Your task to perform on an android device: toggle data saver in the chrome app Image 0: 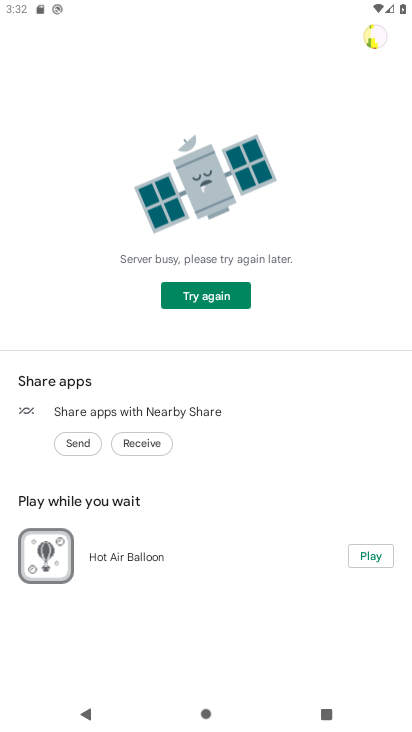
Step 0: press home button
Your task to perform on an android device: toggle data saver in the chrome app Image 1: 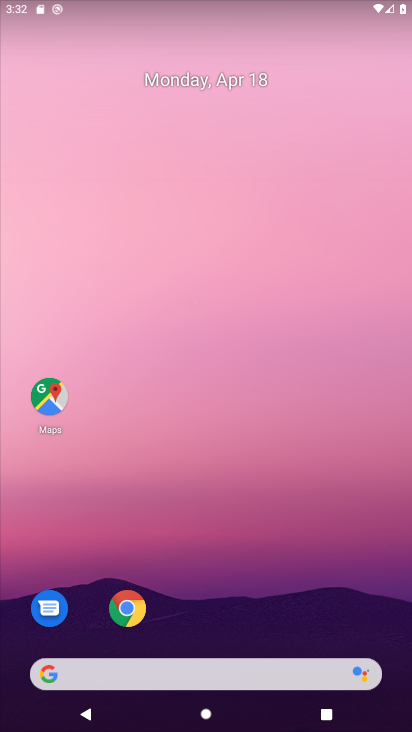
Step 1: click (131, 597)
Your task to perform on an android device: toggle data saver in the chrome app Image 2: 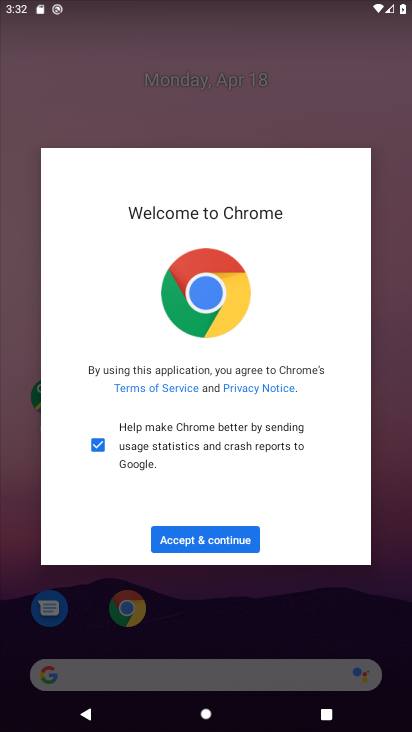
Step 2: click (212, 532)
Your task to perform on an android device: toggle data saver in the chrome app Image 3: 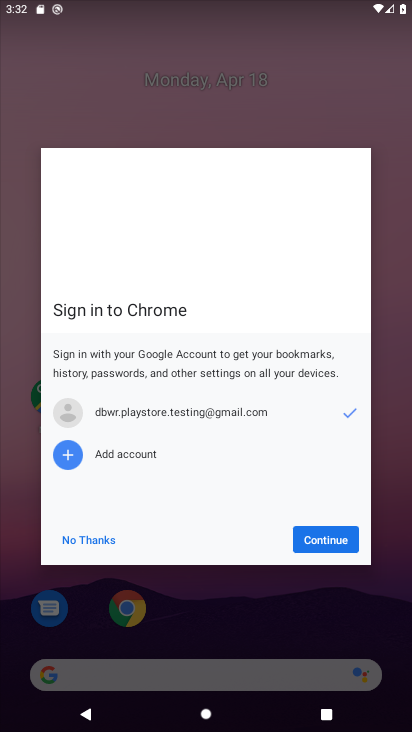
Step 3: click (344, 544)
Your task to perform on an android device: toggle data saver in the chrome app Image 4: 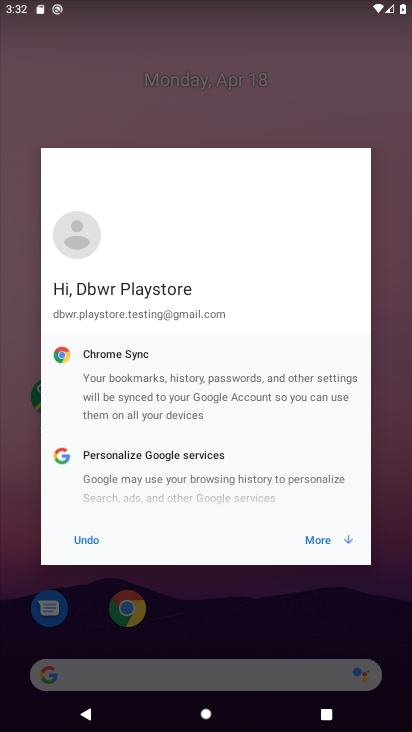
Step 4: click (318, 541)
Your task to perform on an android device: toggle data saver in the chrome app Image 5: 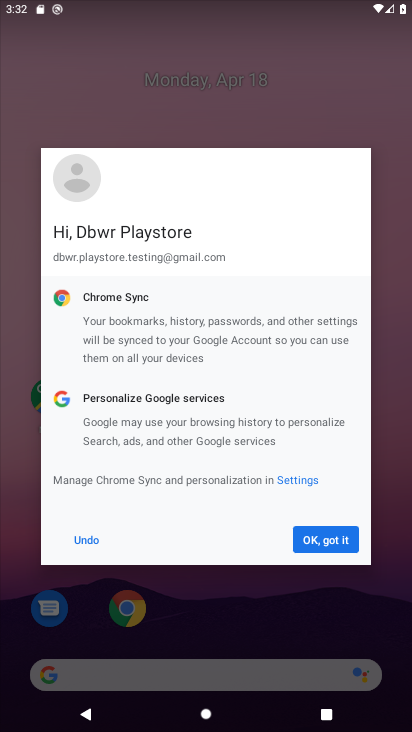
Step 5: click (318, 541)
Your task to perform on an android device: toggle data saver in the chrome app Image 6: 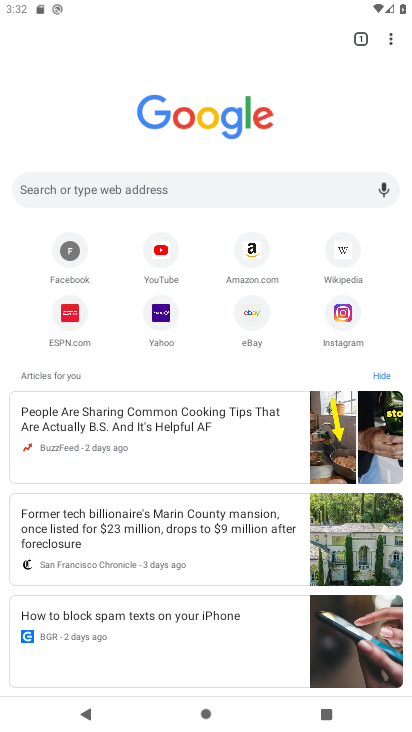
Step 6: click (388, 36)
Your task to perform on an android device: toggle data saver in the chrome app Image 7: 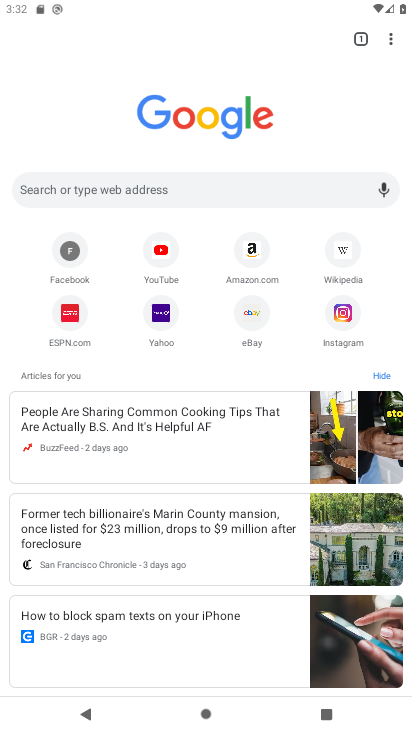
Step 7: click (388, 37)
Your task to perform on an android device: toggle data saver in the chrome app Image 8: 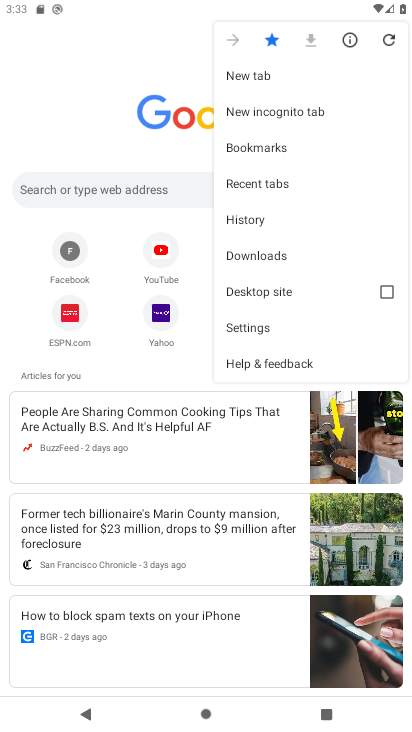
Step 8: drag from (333, 345) to (332, 115)
Your task to perform on an android device: toggle data saver in the chrome app Image 9: 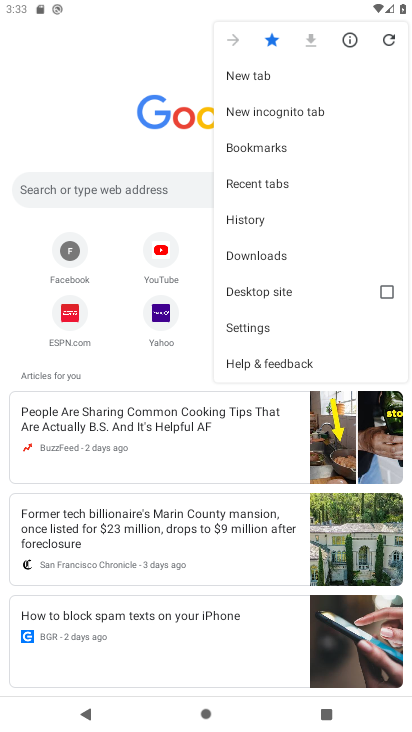
Step 9: click (250, 328)
Your task to perform on an android device: toggle data saver in the chrome app Image 10: 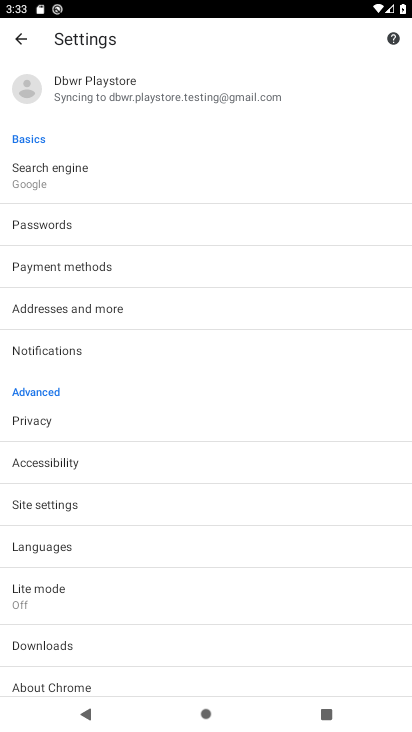
Step 10: click (40, 584)
Your task to perform on an android device: toggle data saver in the chrome app Image 11: 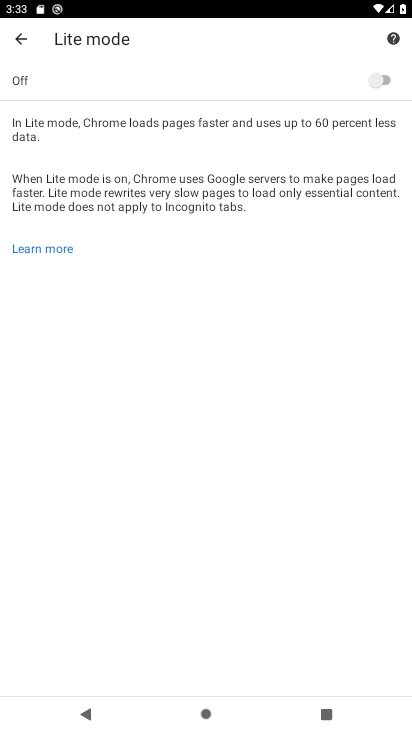
Step 11: click (389, 82)
Your task to perform on an android device: toggle data saver in the chrome app Image 12: 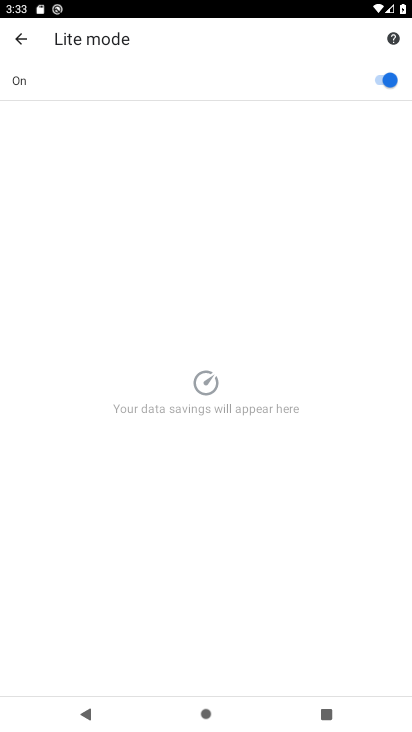
Step 12: task complete